Your task to perform on an android device: Open ESPN.com Image 0: 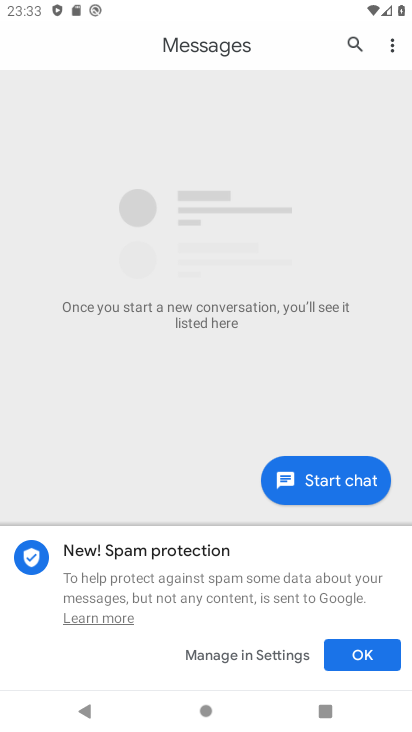
Step 0: press home button
Your task to perform on an android device: Open ESPN.com Image 1: 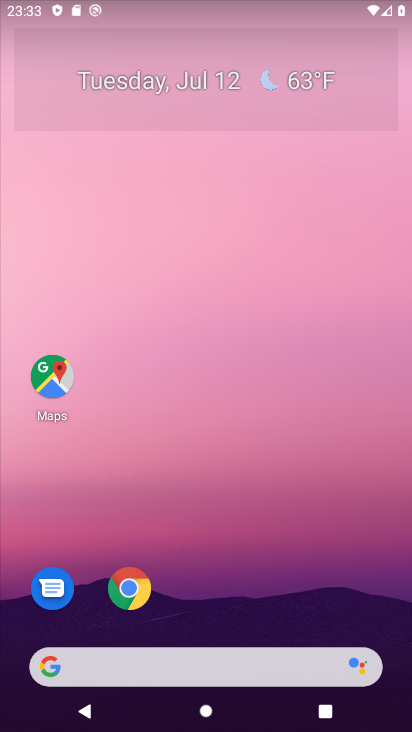
Step 1: click (89, 665)
Your task to perform on an android device: Open ESPN.com Image 2: 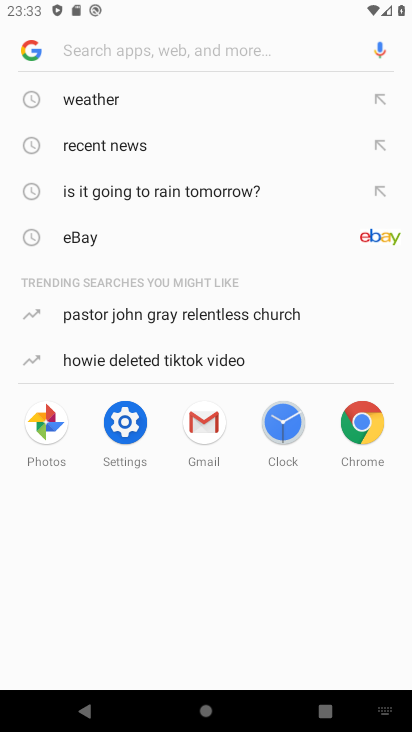
Step 2: type " ESPN.com"
Your task to perform on an android device: Open ESPN.com Image 3: 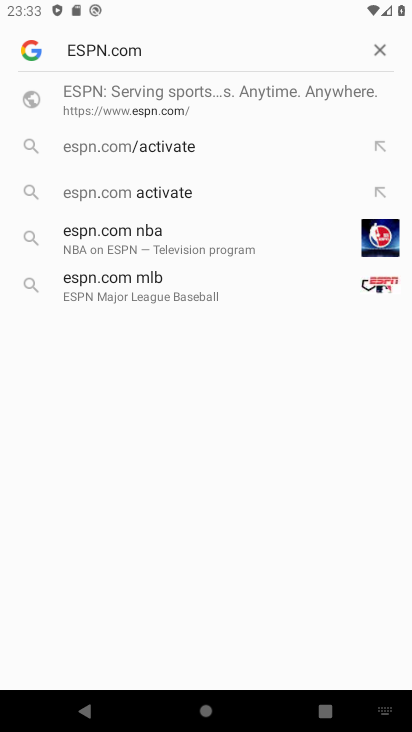
Step 3: type ""
Your task to perform on an android device: Open ESPN.com Image 4: 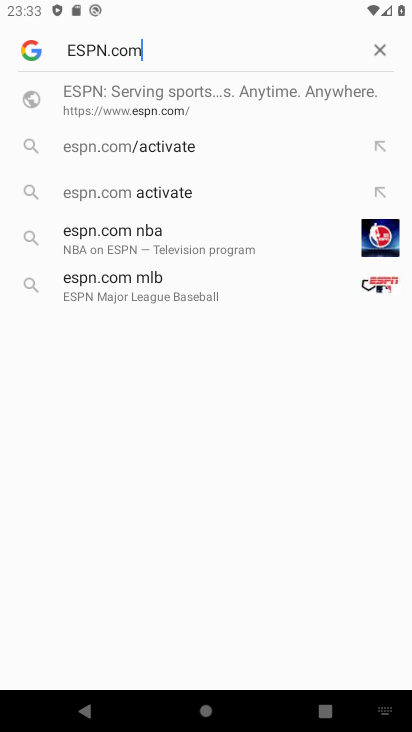
Step 4: type ""
Your task to perform on an android device: Open ESPN.com Image 5: 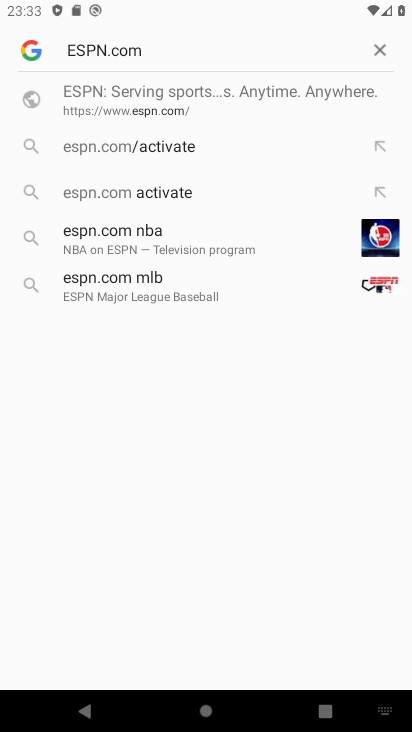
Step 5: type ""
Your task to perform on an android device: Open ESPN.com Image 6: 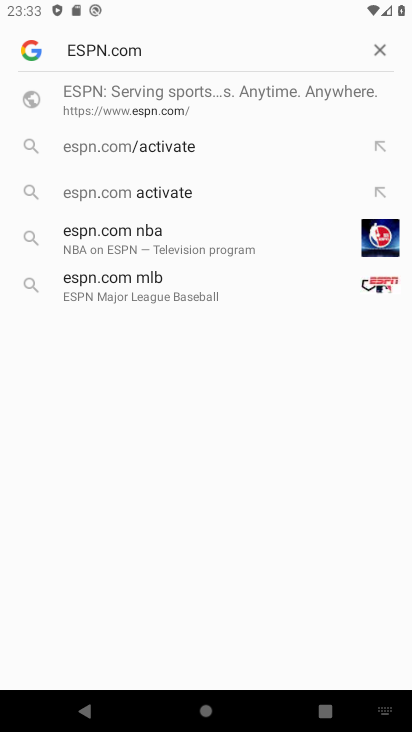
Step 6: task complete